Your task to perform on an android device: toggle notifications settings in the gmail app Image 0: 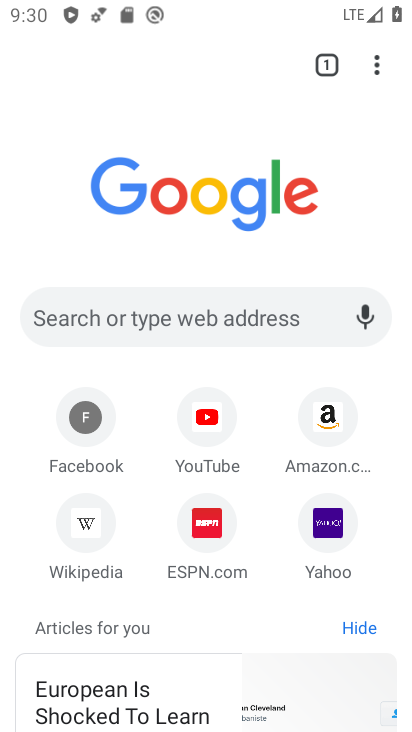
Step 0: press home button
Your task to perform on an android device: toggle notifications settings in the gmail app Image 1: 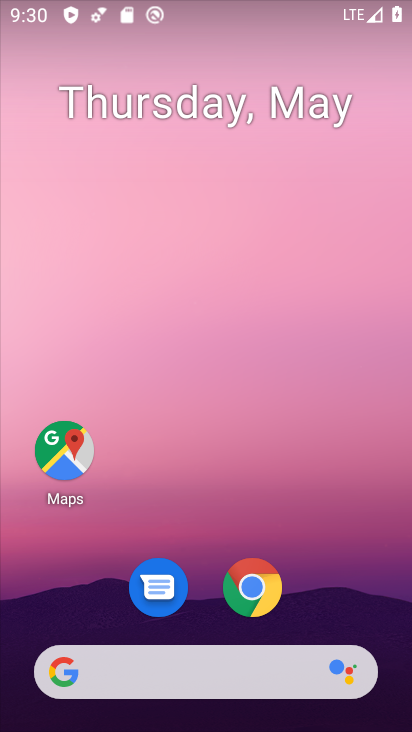
Step 1: drag from (354, 621) to (340, 23)
Your task to perform on an android device: toggle notifications settings in the gmail app Image 2: 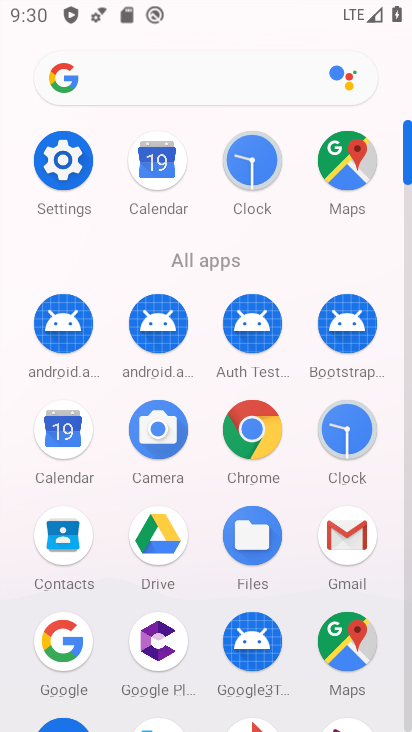
Step 2: click (336, 532)
Your task to perform on an android device: toggle notifications settings in the gmail app Image 3: 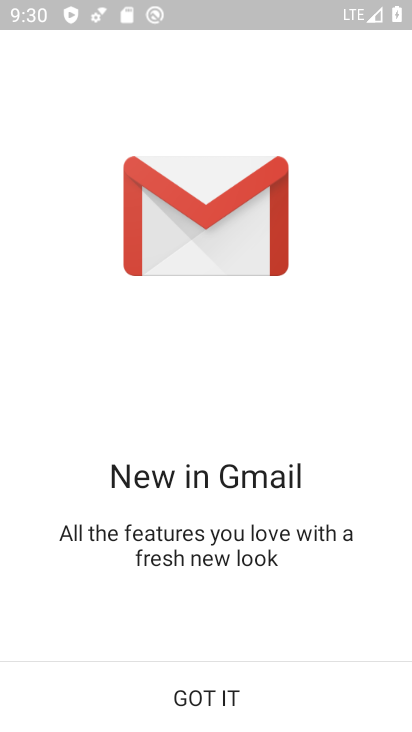
Step 3: click (170, 693)
Your task to perform on an android device: toggle notifications settings in the gmail app Image 4: 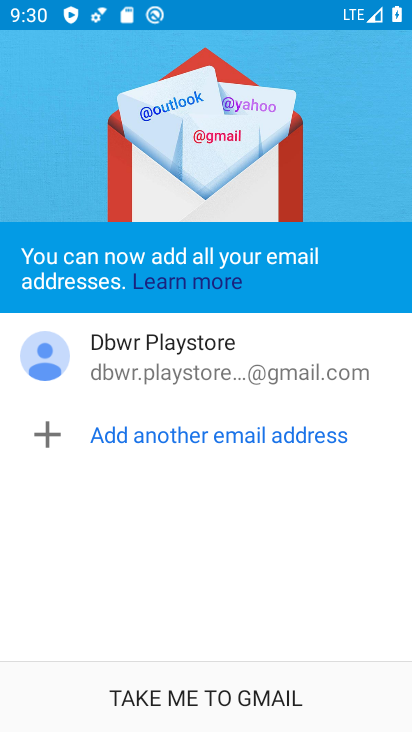
Step 4: click (181, 693)
Your task to perform on an android device: toggle notifications settings in the gmail app Image 5: 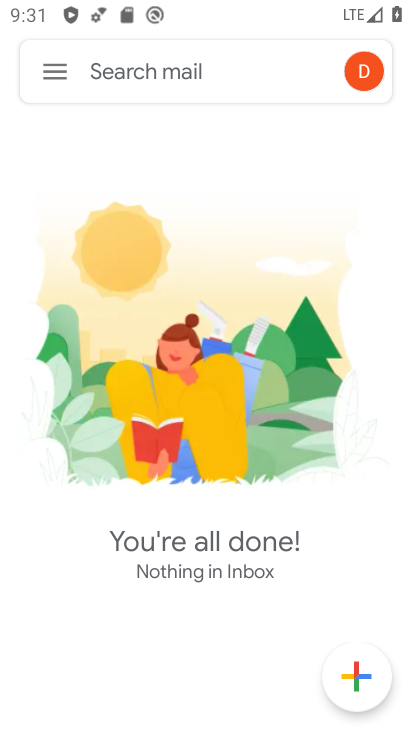
Step 5: click (52, 78)
Your task to perform on an android device: toggle notifications settings in the gmail app Image 6: 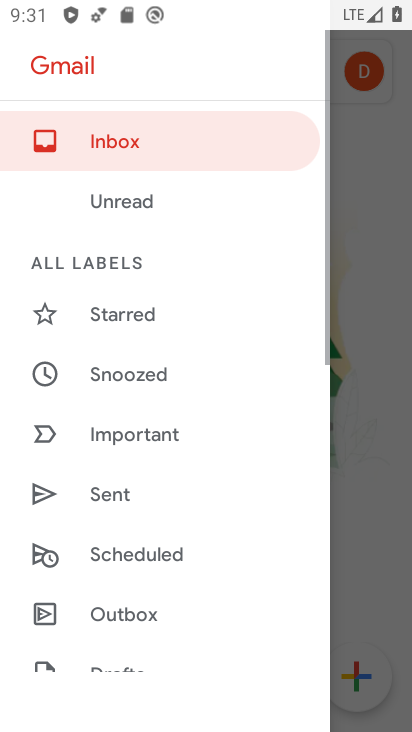
Step 6: drag from (191, 612) to (183, 169)
Your task to perform on an android device: toggle notifications settings in the gmail app Image 7: 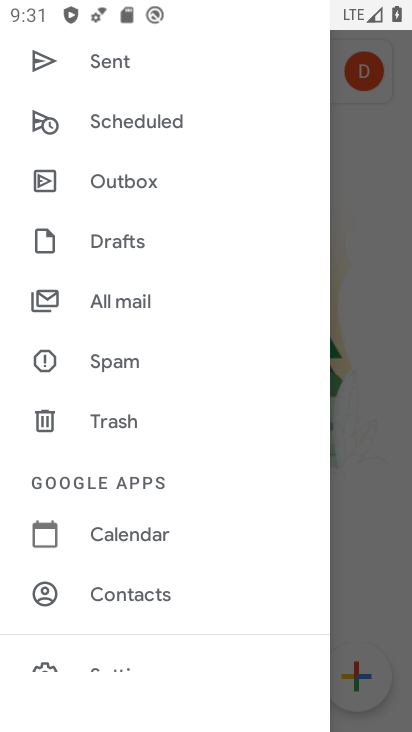
Step 7: drag from (234, 590) to (235, 263)
Your task to perform on an android device: toggle notifications settings in the gmail app Image 8: 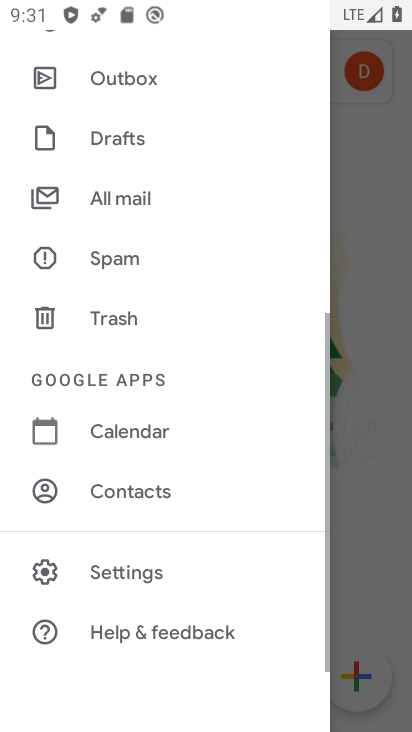
Step 8: click (123, 573)
Your task to perform on an android device: toggle notifications settings in the gmail app Image 9: 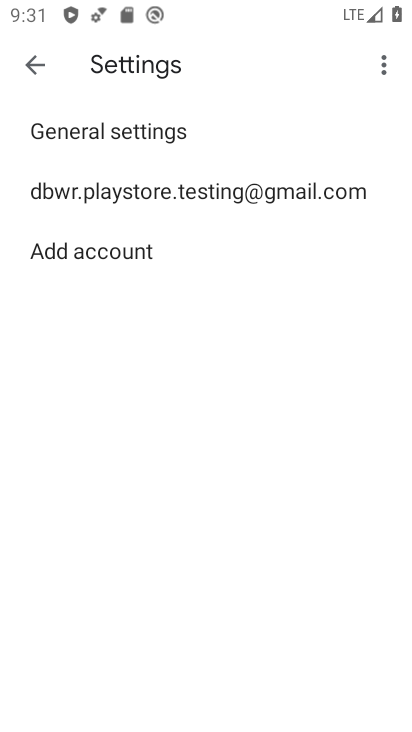
Step 9: click (117, 133)
Your task to perform on an android device: toggle notifications settings in the gmail app Image 10: 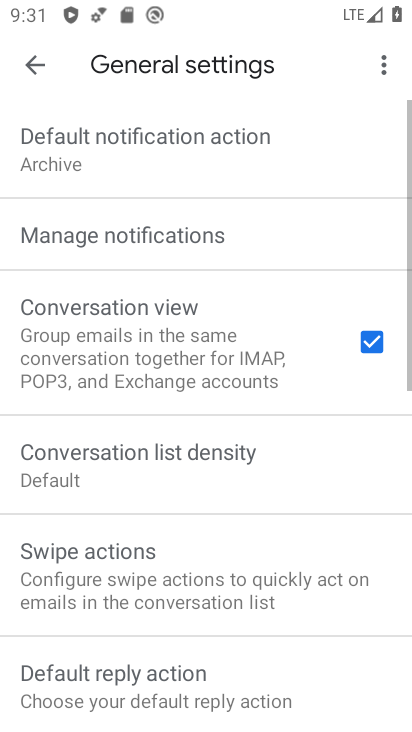
Step 10: click (109, 233)
Your task to perform on an android device: toggle notifications settings in the gmail app Image 11: 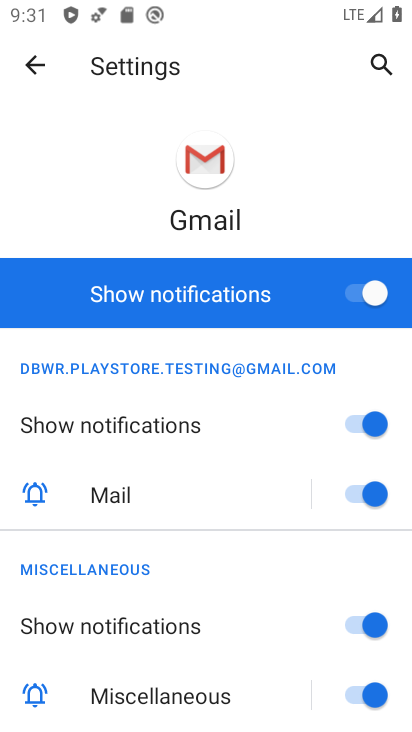
Step 11: click (376, 298)
Your task to perform on an android device: toggle notifications settings in the gmail app Image 12: 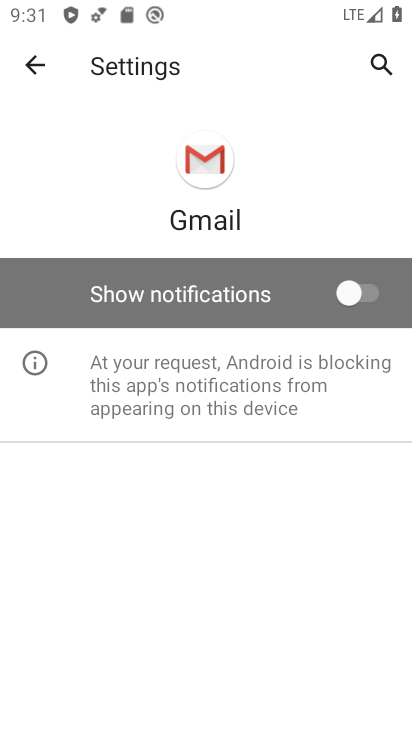
Step 12: task complete